Your task to perform on an android device: Go to wifi settings Image 0: 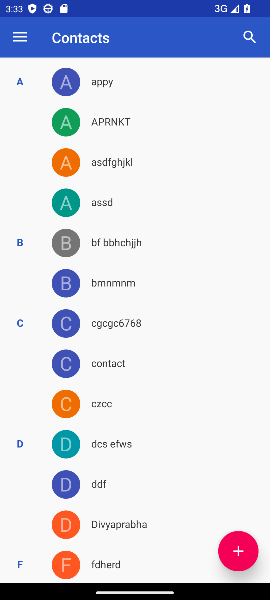
Step 0: press home button
Your task to perform on an android device: Go to wifi settings Image 1: 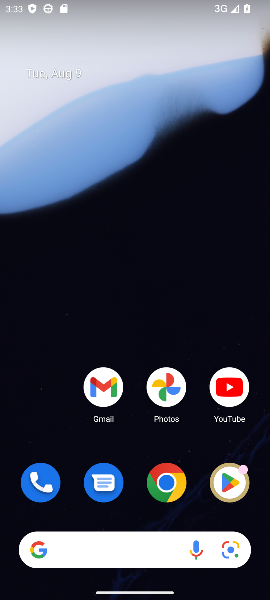
Step 1: drag from (131, 440) to (133, 127)
Your task to perform on an android device: Go to wifi settings Image 2: 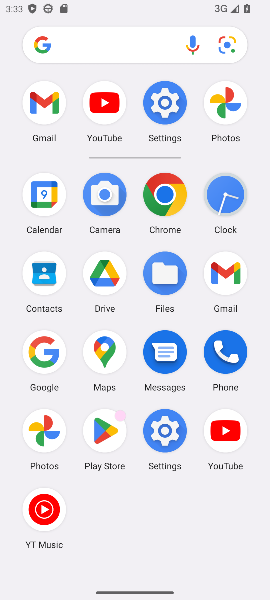
Step 2: click (153, 109)
Your task to perform on an android device: Go to wifi settings Image 3: 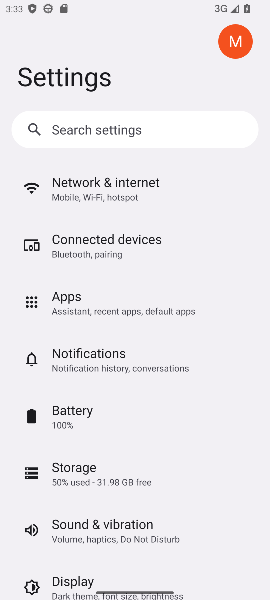
Step 3: click (96, 178)
Your task to perform on an android device: Go to wifi settings Image 4: 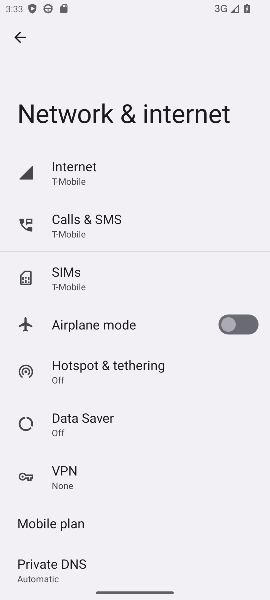
Step 4: click (87, 182)
Your task to perform on an android device: Go to wifi settings Image 5: 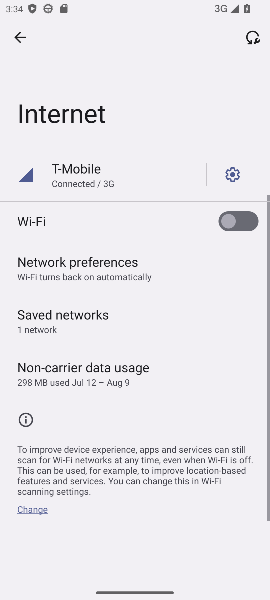
Step 5: task complete